Your task to perform on an android device: Go to internet settings Image 0: 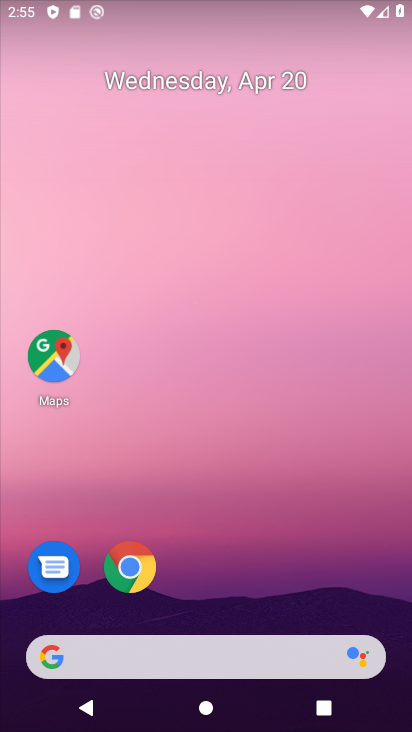
Step 0: drag from (353, 544) to (284, 206)
Your task to perform on an android device: Go to internet settings Image 1: 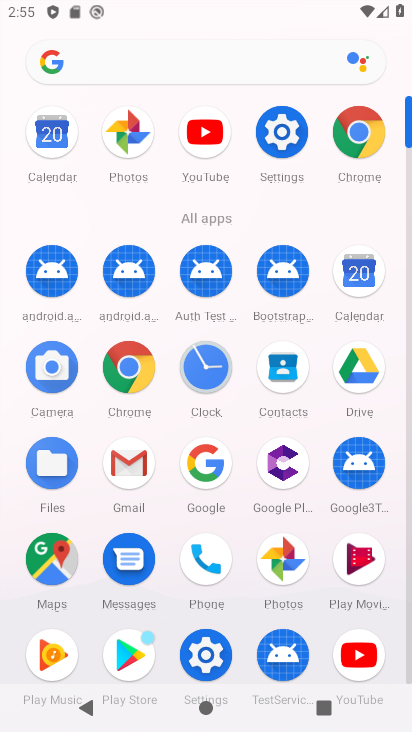
Step 1: click (282, 140)
Your task to perform on an android device: Go to internet settings Image 2: 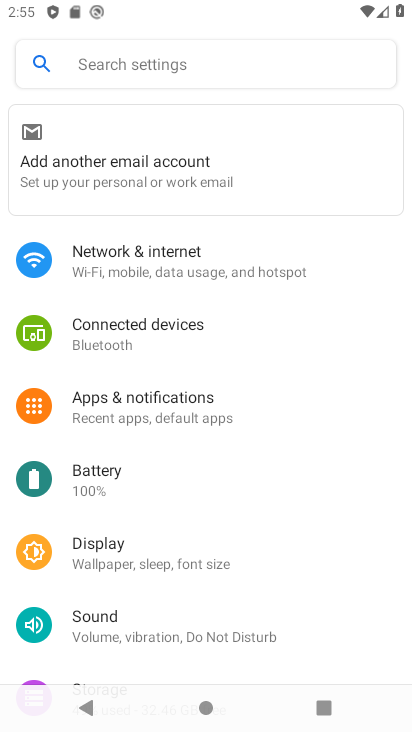
Step 2: click (273, 265)
Your task to perform on an android device: Go to internet settings Image 3: 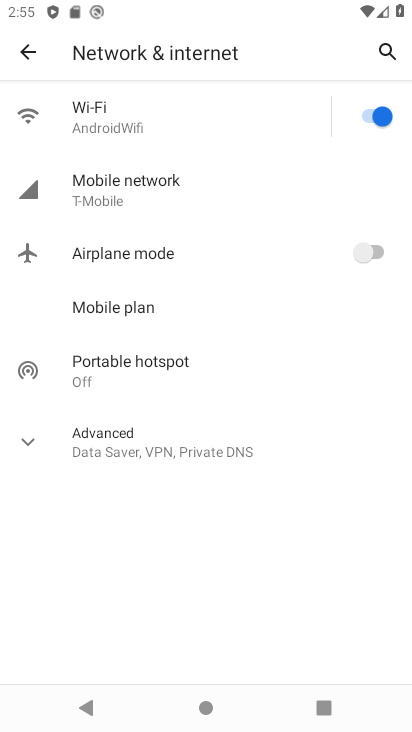
Step 3: task complete